Your task to perform on an android device: add a label to a message in the gmail app Image 0: 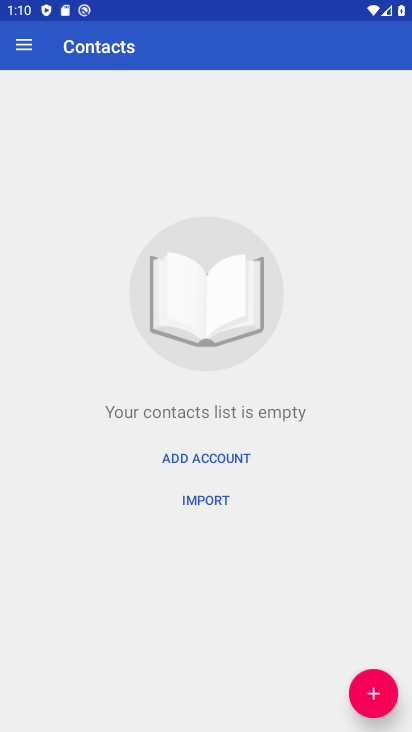
Step 0: press back button
Your task to perform on an android device: add a label to a message in the gmail app Image 1: 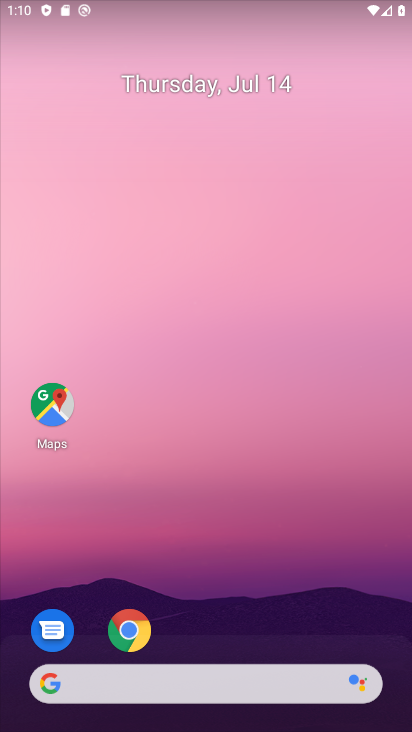
Step 1: drag from (229, 586) to (285, 45)
Your task to perform on an android device: add a label to a message in the gmail app Image 2: 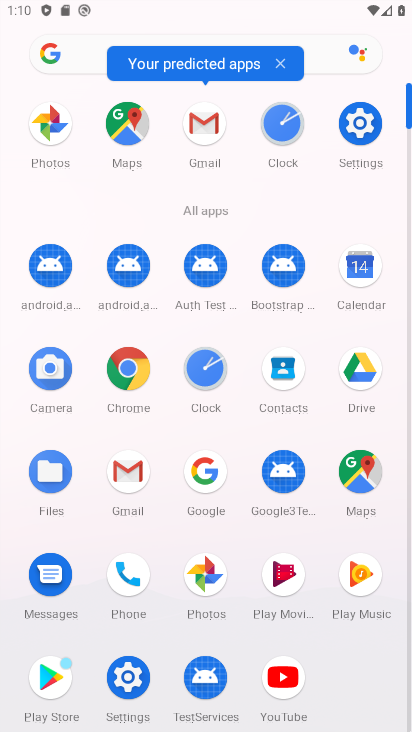
Step 2: click (215, 118)
Your task to perform on an android device: add a label to a message in the gmail app Image 3: 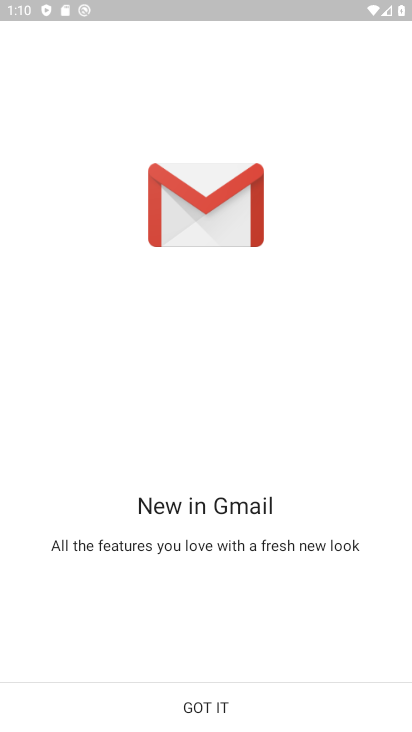
Step 3: click (210, 708)
Your task to perform on an android device: add a label to a message in the gmail app Image 4: 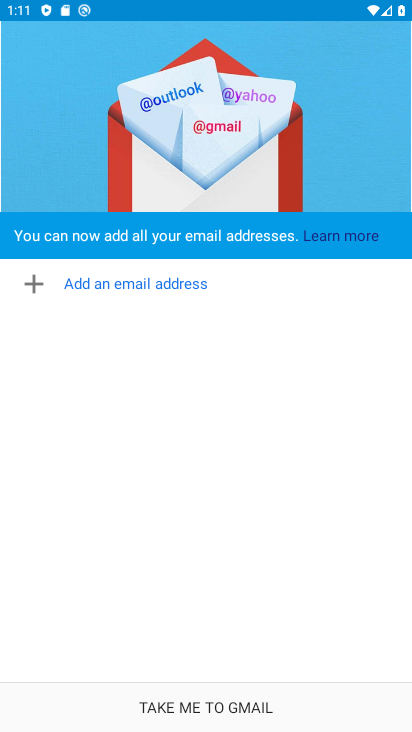
Step 4: click (200, 698)
Your task to perform on an android device: add a label to a message in the gmail app Image 5: 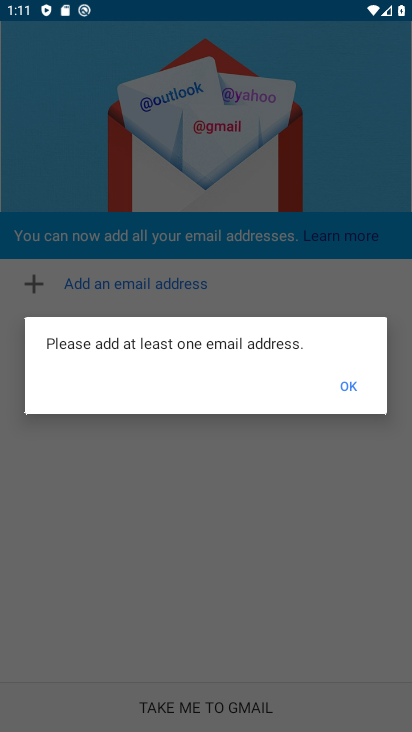
Step 5: click (344, 390)
Your task to perform on an android device: add a label to a message in the gmail app Image 6: 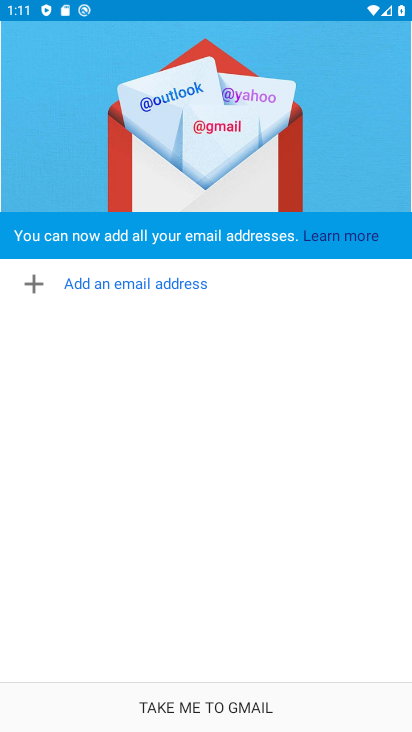
Step 6: task complete